Your task to perform on an android device: install app "Microsoft Outlook" Image 0: 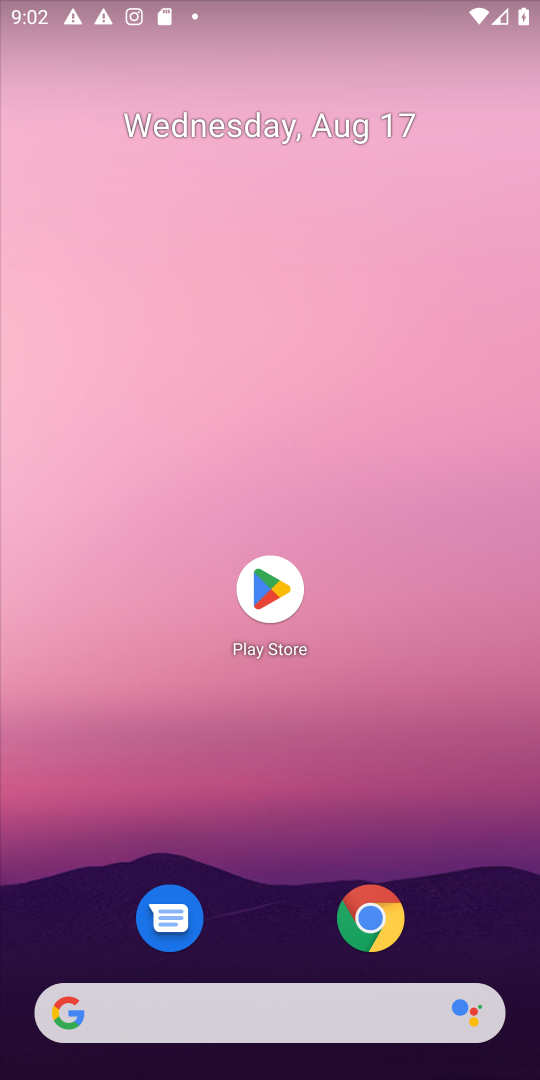
Step 0: click (267, 592)
Your task to perform on an android device: install app "Microsoft Outlook" Image 1: 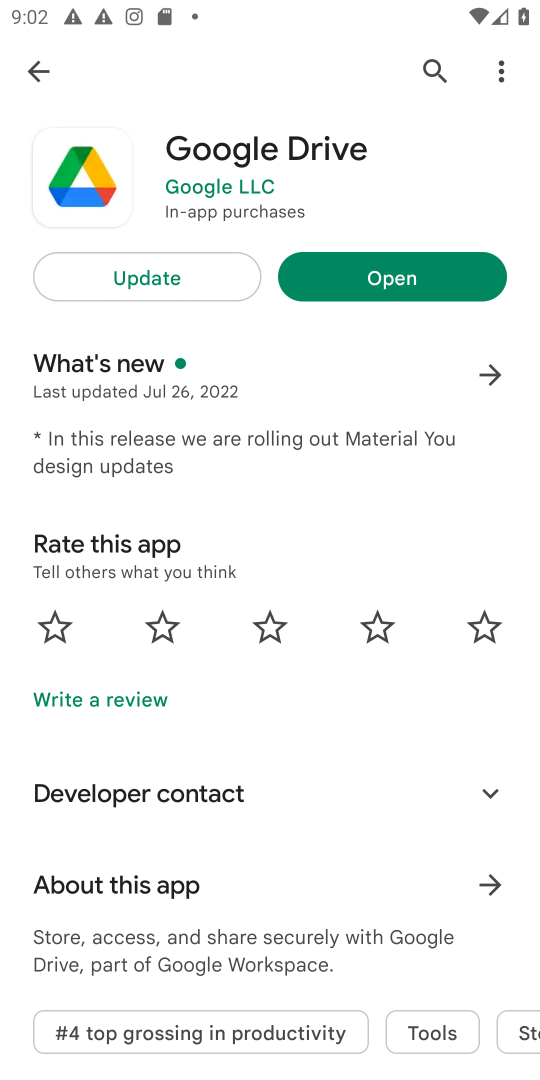
Step 1: click (426, 68)
Your task to perform on an android device: install app "Microsoft Outlook" Image 2: 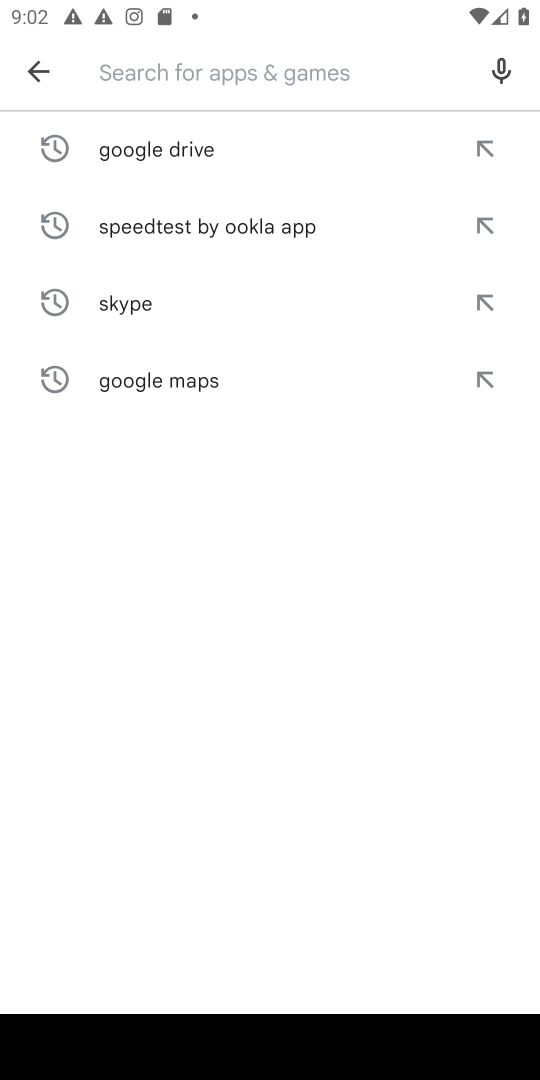
Step 2: type "Microsoft Outlook"
Your task to perform on an android device: install app "Microsoft Outlook" Image 3: 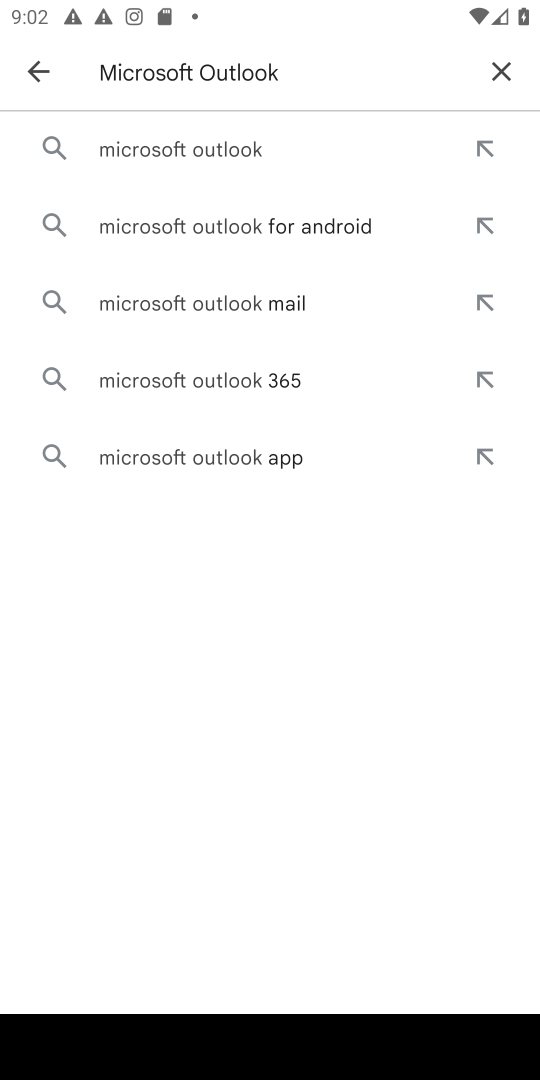
Step 3: click (219, 146)
Your task to perform on an android device: install app "Microsoft Outlook" Image 4: 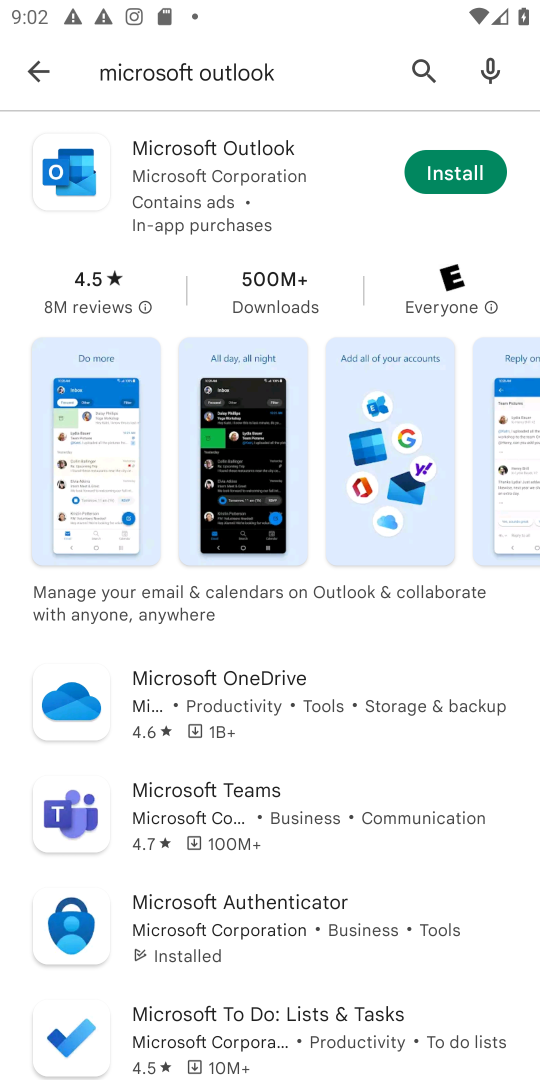
Step 4: click (467, 164)
Your task to perform on an android device: install app "Microsoft Outlook" Image 5: 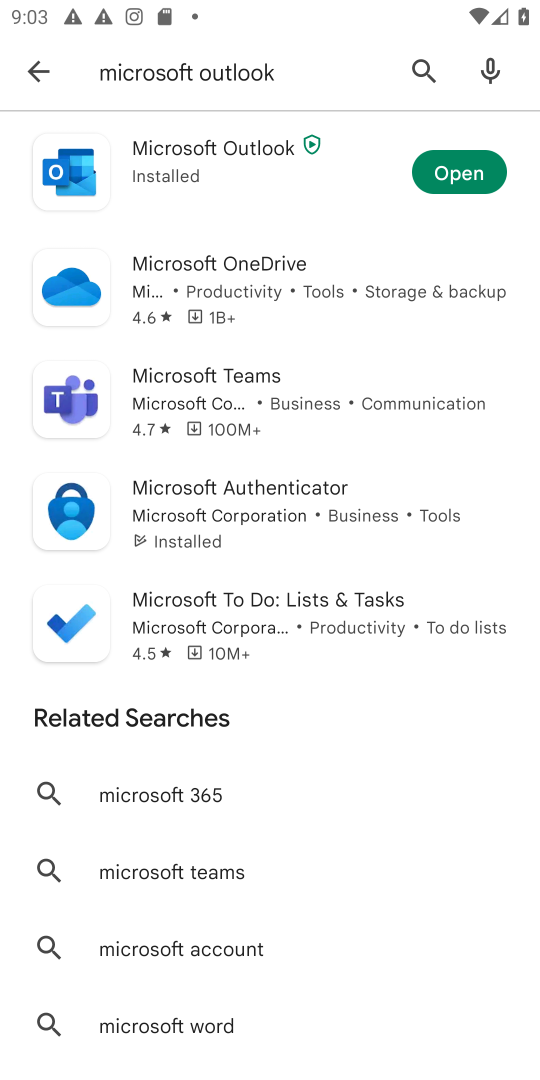
Step 5: task complete